Your task to perform on an android device: all mails in gmail Image 0: 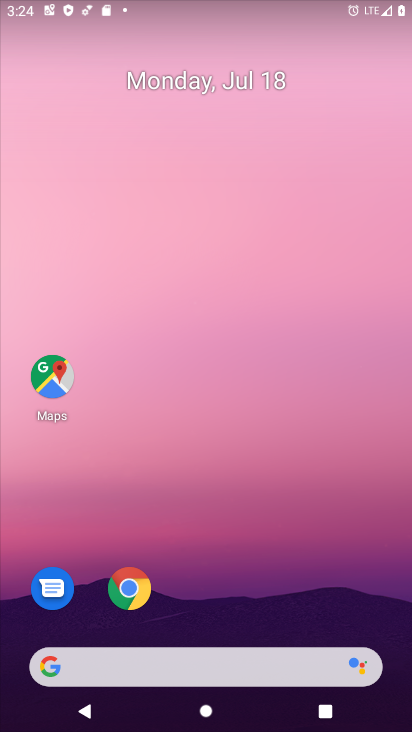
Step 0: drag from (198, 602) to (307, 12)
Your task to perform on an android device: all mails in gmail Image 1: 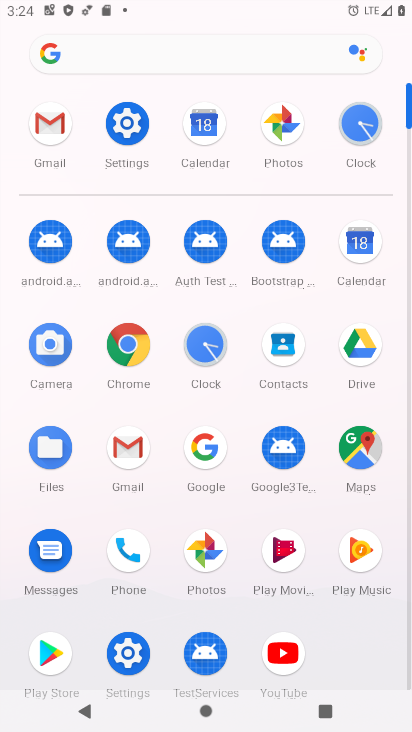
Step 1: click (54, 126)
Your task to perform on an android device: all mails in gmail Image 2: 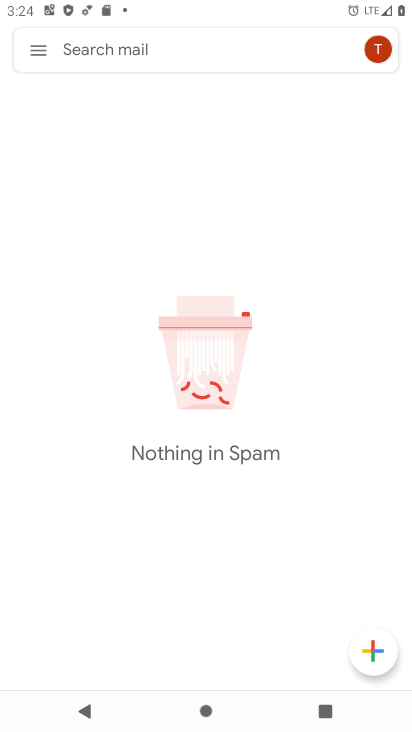
Step 2: click (39, 52)
Your task to perform on an android device: all mails in gmail Image 3: 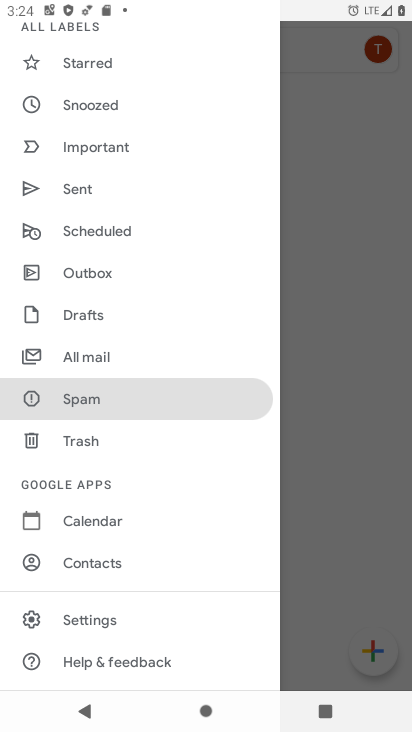
Step 3: click (96, 359)
Your task to perform on an android device: all mails in gmail Image 4: 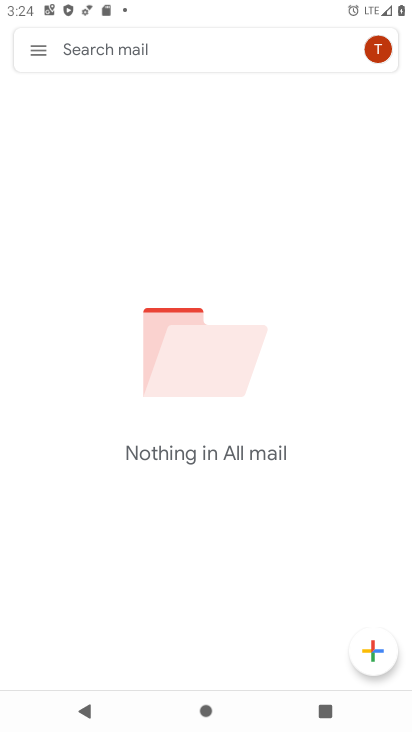
Step 4: task complete